Your task to perform on an android device: Search for Mexican restaurants on Maps Image 0: 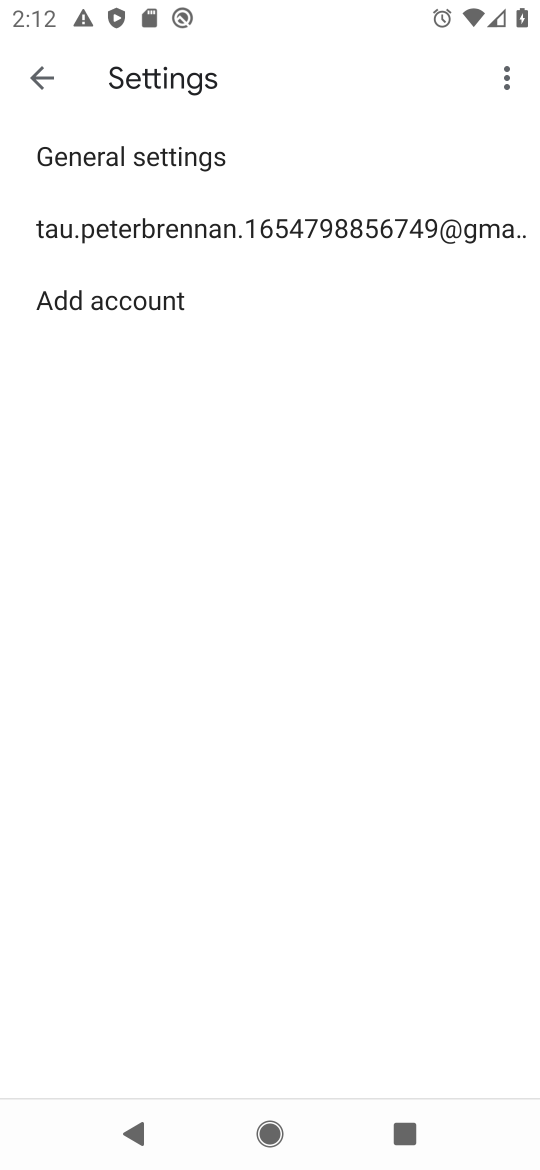
Step 0: press home button
Your task to perform on an android device: Search for Mexican restaurants on Maps Image 1: 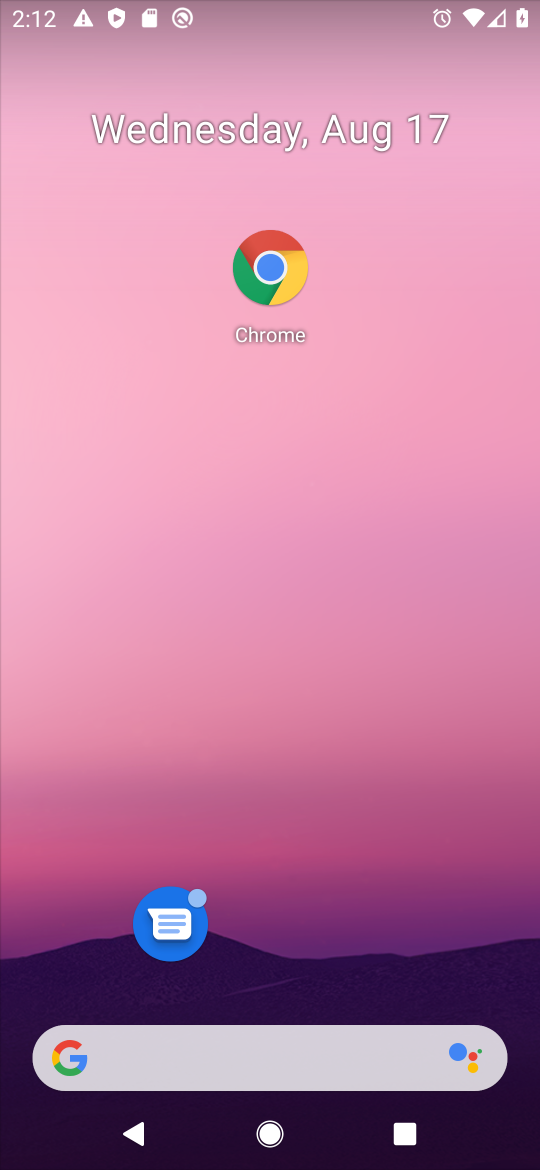
Step 1: drag from (296, 1002) to (238, 64)
Your task to perform on an android device: Search for Mexican restaurants on Maps Image 2: 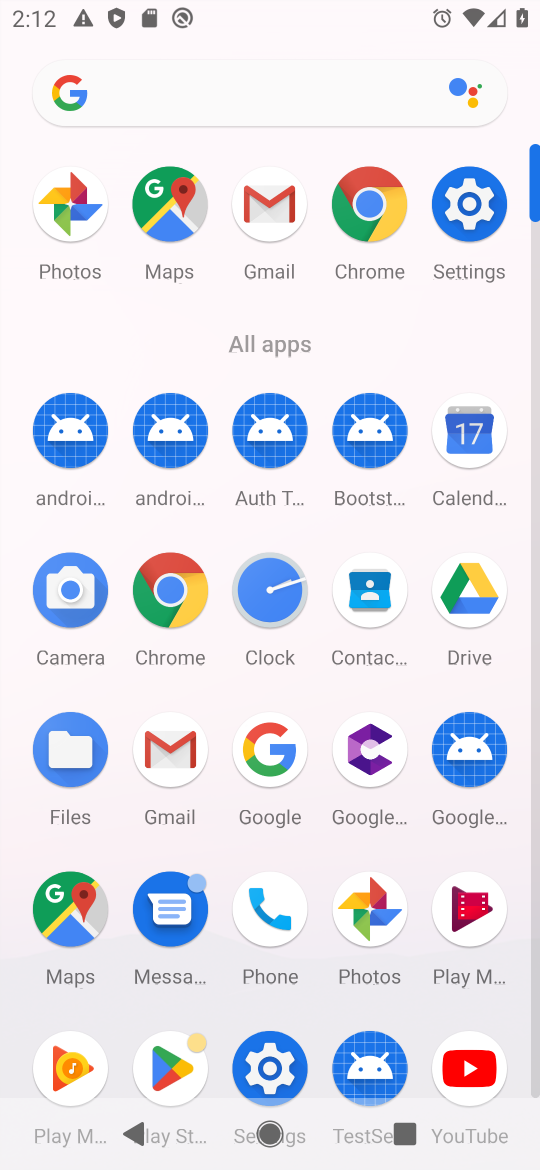
Step 2: click (83, 908)
Your task to perform on an android device: Search for Mexican restaurants on Maps Image 3: 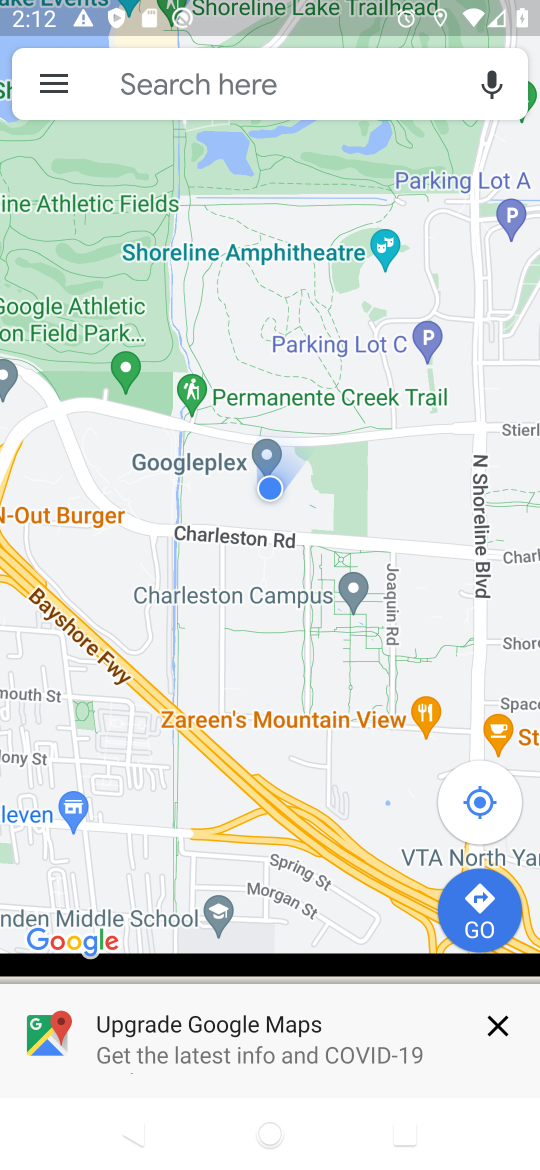
Step 3: click (279, 82)
Your task to perform on an android device: Search for Mexican restaurants on Maps Image 4: 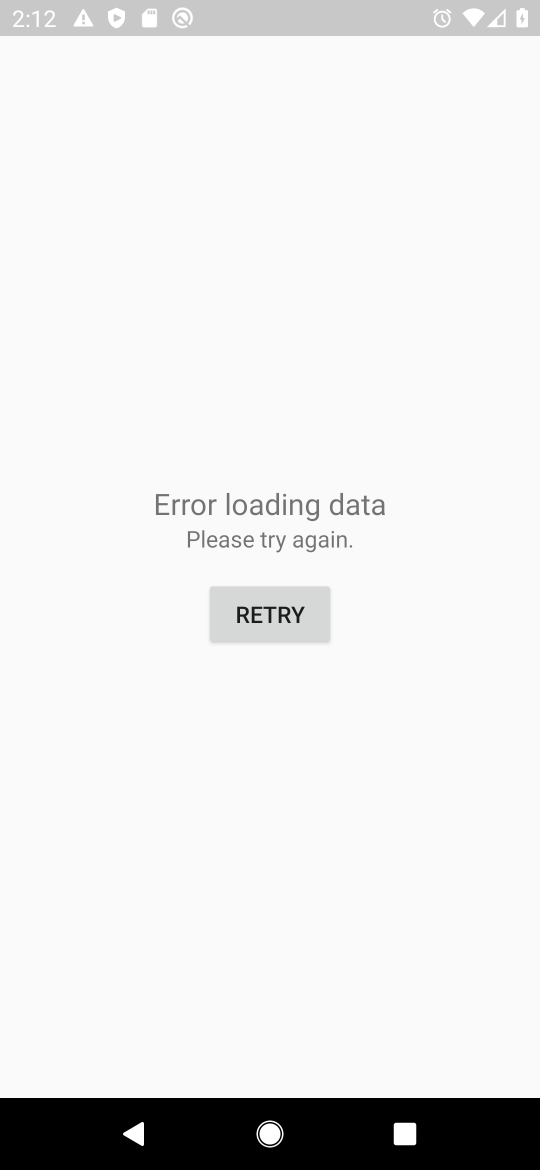
Step 4: click (231, 628)
Your task to perform on an android device: Search for Mexican restaurants on Maps Image 5: 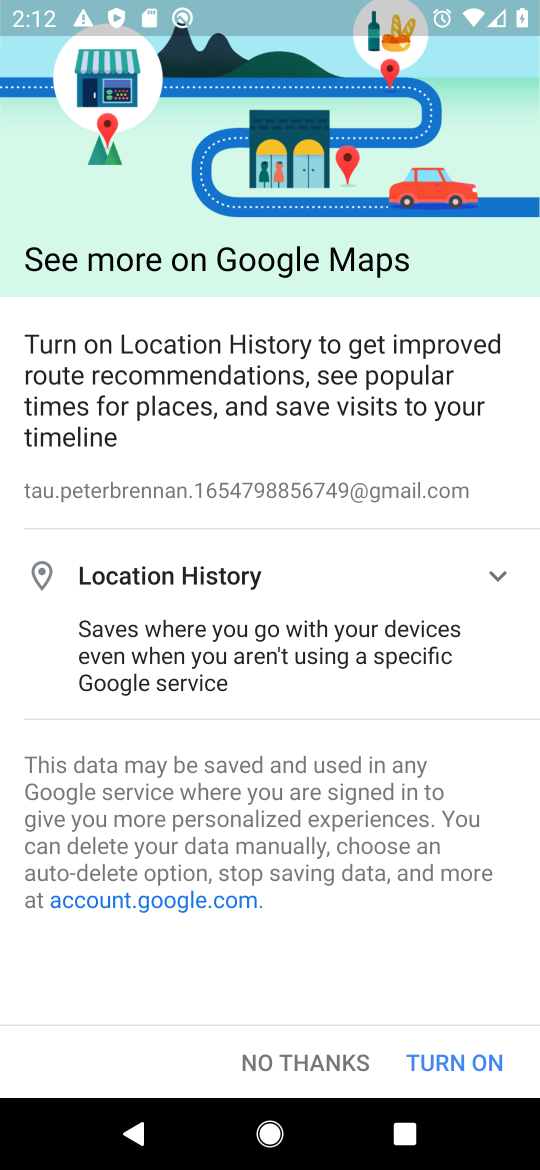
Step 5: click (432, 1052)
Your task to perform on an android device: Search for Mexican restaurants on Maps Image 6: 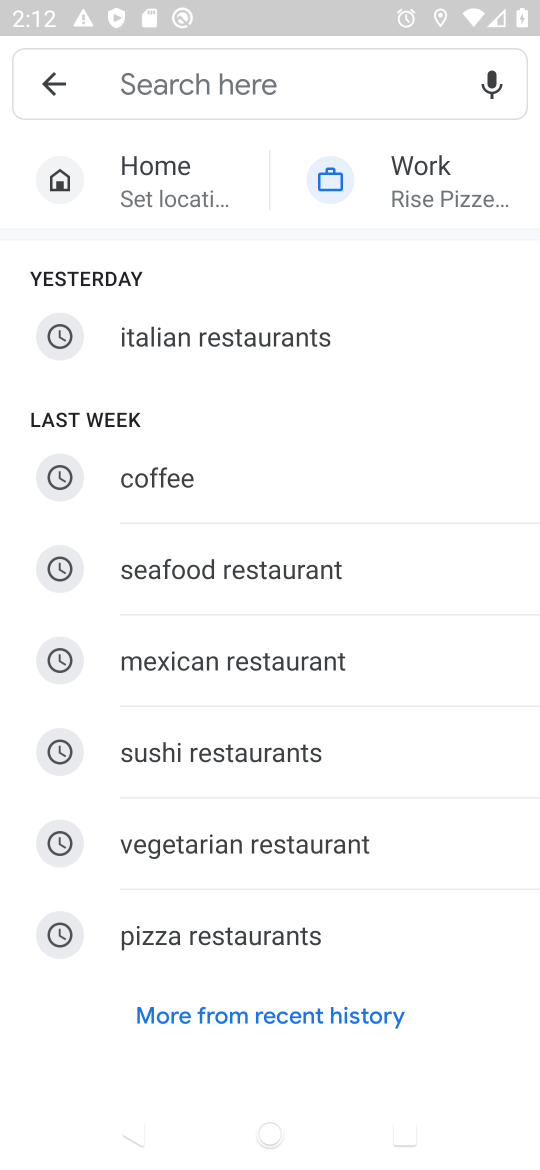
Step 6: click (244, 672)
Your task to perform on an android device: Search for Mexican restaurants on Maps Image 7: 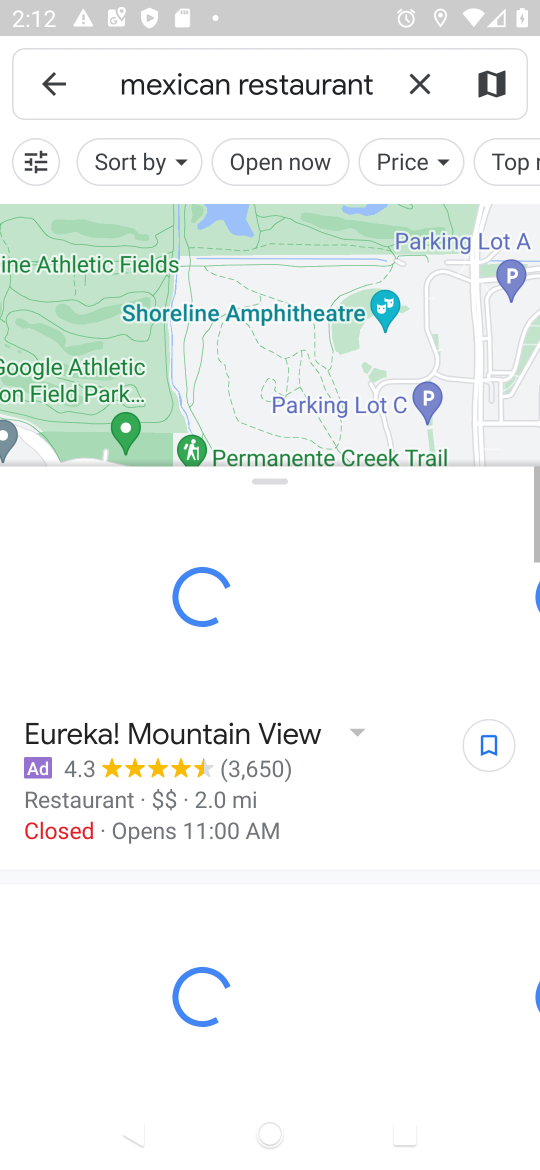
Step 7: task complete